Your task to perform on an android device: clear all cookies in the chrome app Image 0: 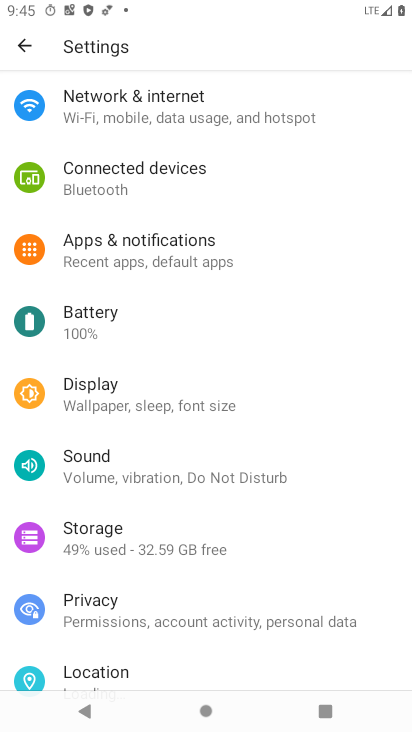
Step 0: press back button
Your task to perform on an android device: clear all cookies in the chrome app Image 1: 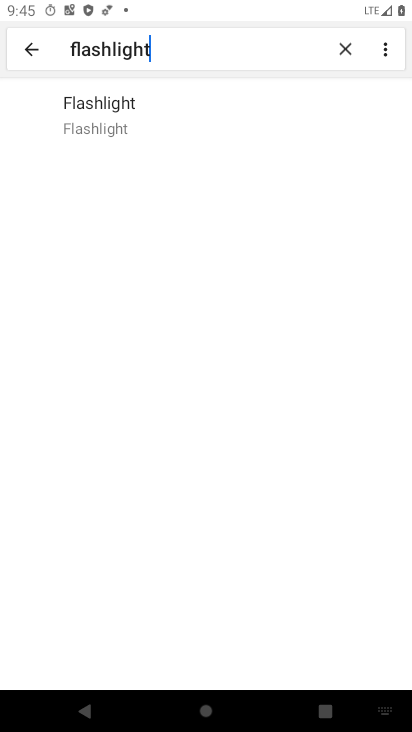
Step 1: press back button
Your task to perform on an android device: clear all cookies in the chrome app Image 2: 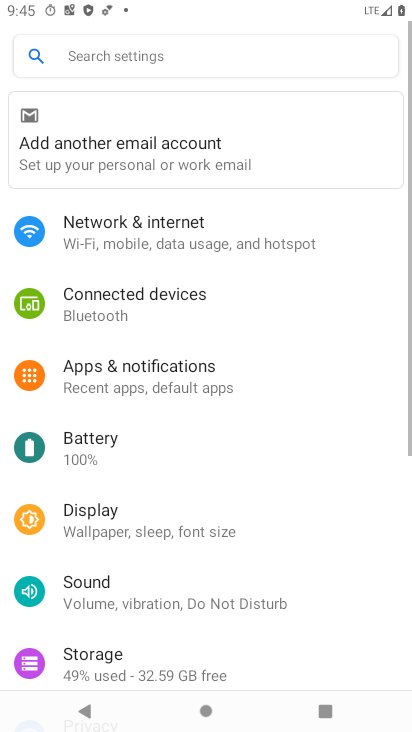
Step 2: press back button
Your task to perform on an android device: clear all cookies in the chrome app Image 3: 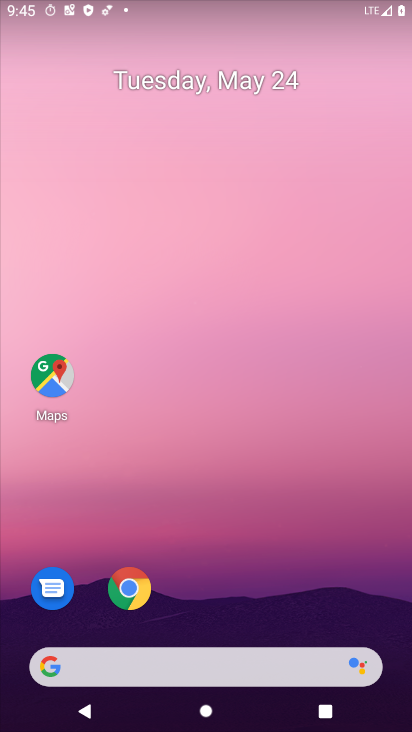
Step 3: click (137, 588)
Your task to perform on an android device: clear all cookies in the chrome app Image 4: 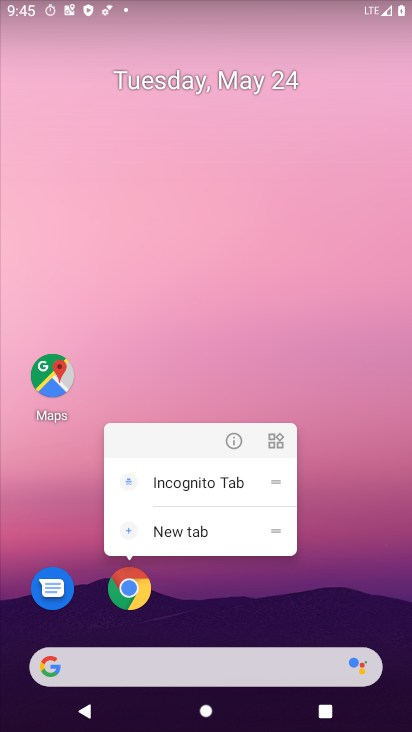
Step 4: click (135, 583)
Your task to perform on an android device: clear all cookies in the chrome app Image 5: 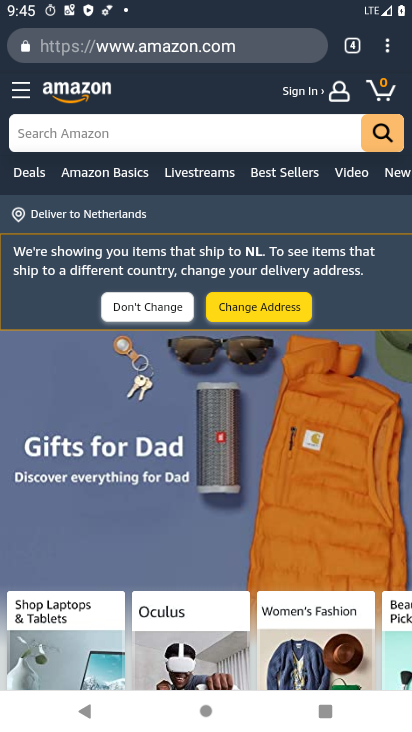
Step 5: drag from (383, 40) to (239, 265)
Your task to perform on an android device: clear all cookies in the chrome app Image 6: 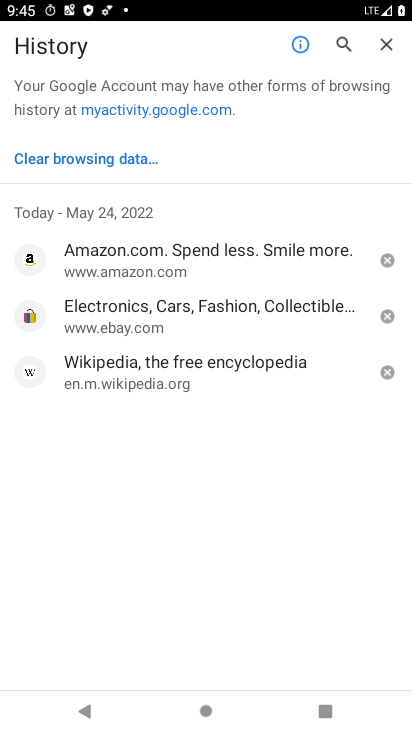
Step 6: click (115, 159)
Your task to perform on an android device: clear all cookies in the chrome app Image 7: 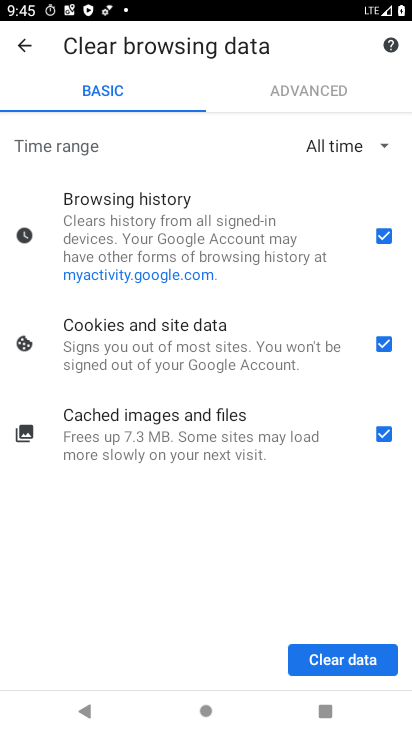
Step 7: click (379, 431)
Your task to perform on an android device: clear all cookies in the chrome app Image 8: 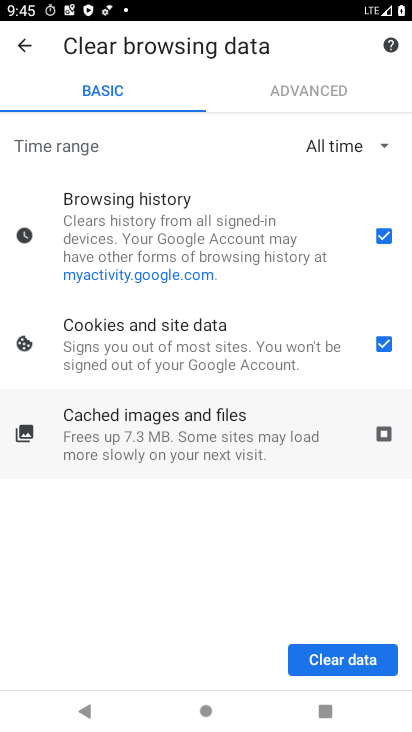
Step 8: click (379, 234)
Your task to perform on an android device: clear all cookies in the chrome app Image 9: 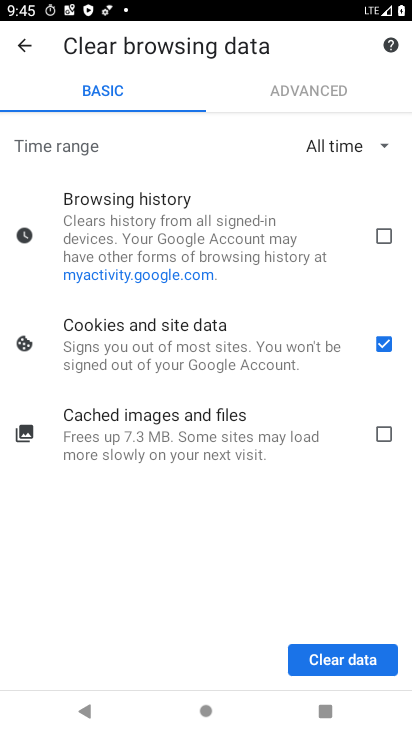
Step 9: click (329, 643)
Your task to perform on an android device: clear all cookies in the chrome app Image 10: 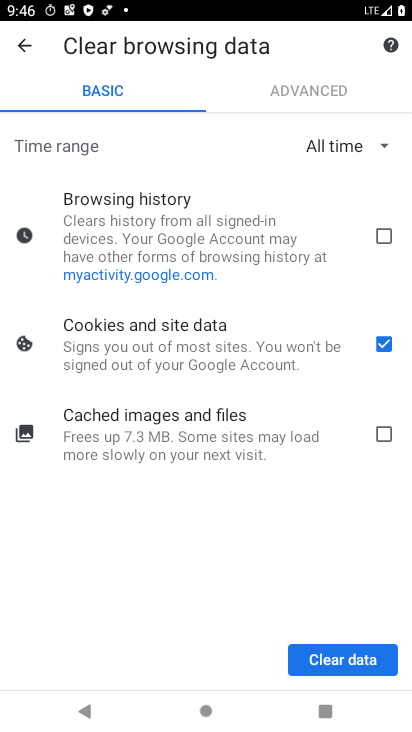
Step 10: click (331, 660)
Your task to perform on an android device: clear all cookies in the chrome app Image 11: 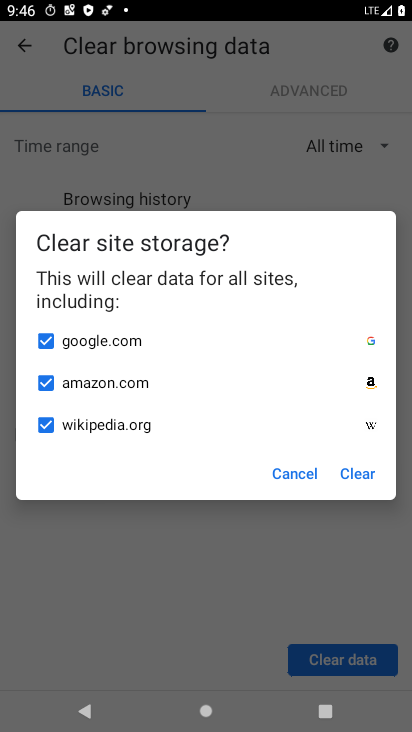
Step 11: click (348, 463)
Your task to perform on an android device: clear all cookies in the chrome app Image 12: 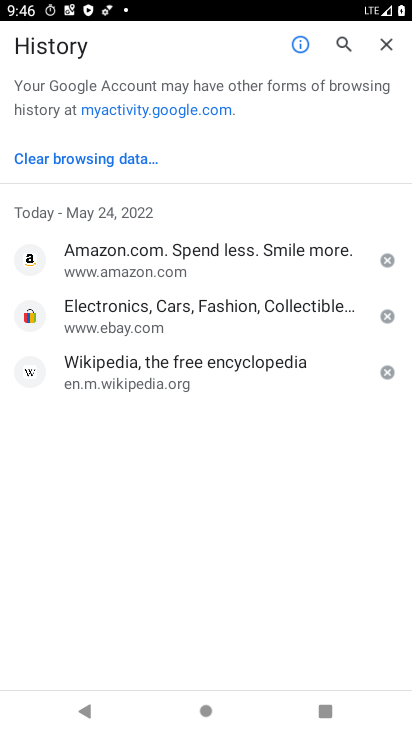
Step 12: task complete